Your task to perform on an android device: delete a single message in the gmail app Image 0: 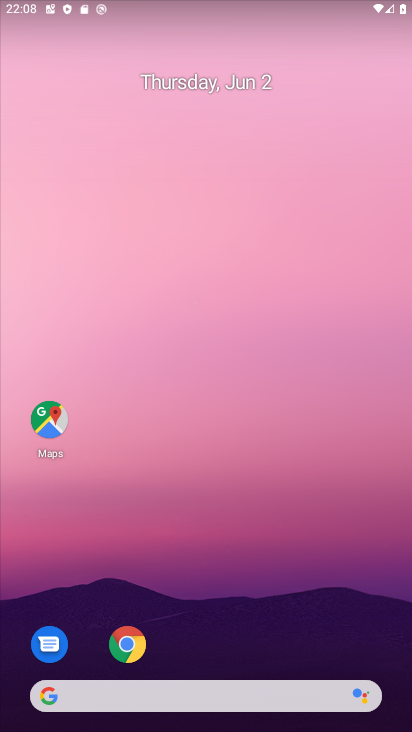
Step 0: drag from (210, 650) to (177, 316)
Your task to perform on an android device: delete a single message in the gmail app Image 1: 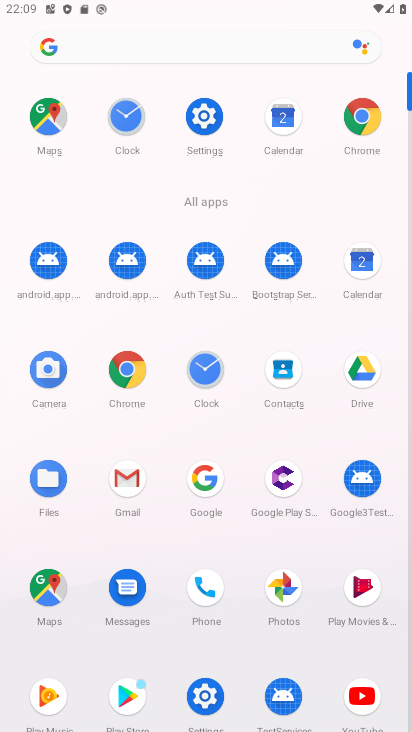
Step 1: click (124, 508)
Your task to perform on an android device: delete a single message in the gmail app Image 2: 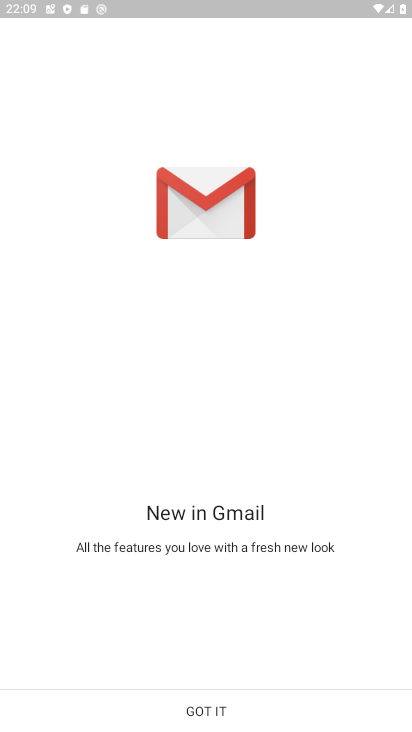
Step 2: click (220, 717)
Your task to perform on an android device: delete a single message in the gmail app Image 3: 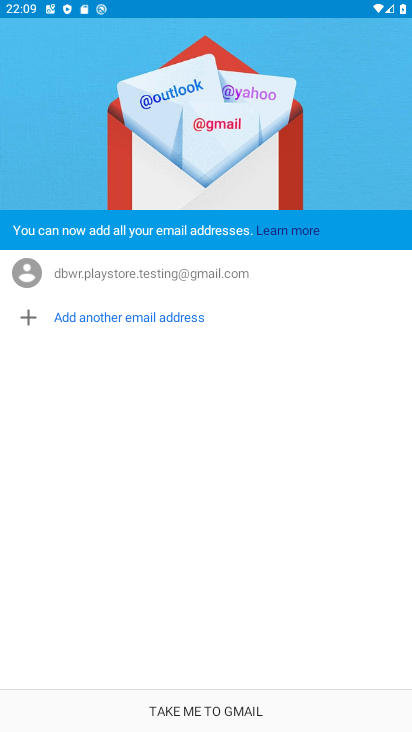
Step 3: click (198, 717)
Your task to perform on an android device: delete a single message in the gmail app Image 4: 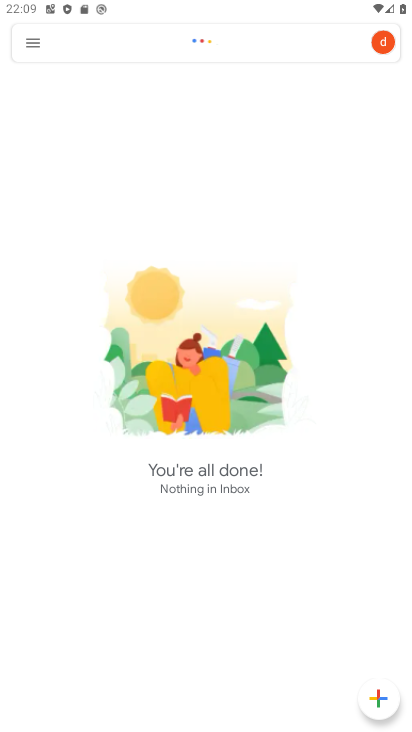
Step 4: click (25, 35)
Your task to perform on an android device: delete a single message in the gmail app Image 5: 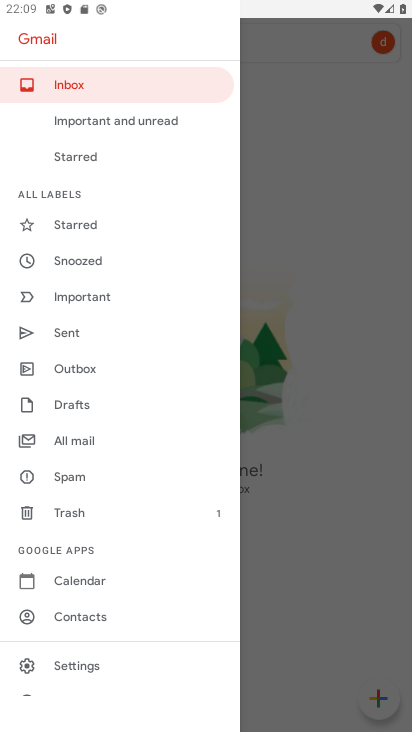
Step 5: click (78, 447)
Your task to perform on an android device: delete a single message in the gmail app Image 6: 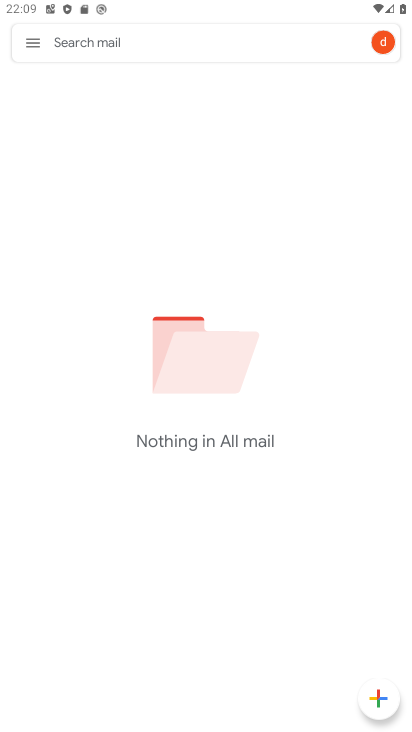
Step 6: task complete